Your task to perform on an android device: show emergency info Image 0: 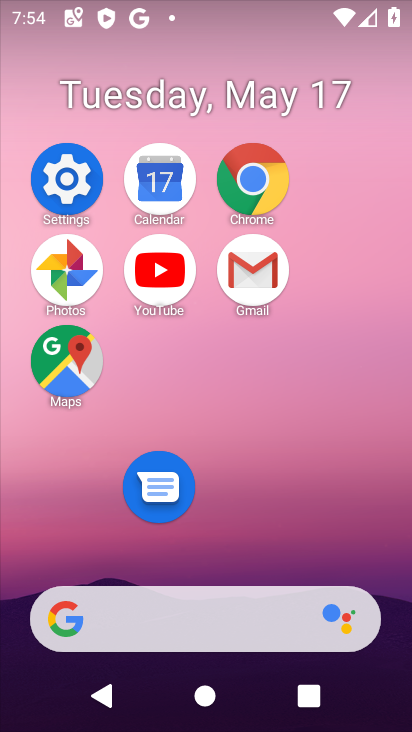
Step 0: click (79, 172)
Your task to perform on an android device: show emergency info Image 1: 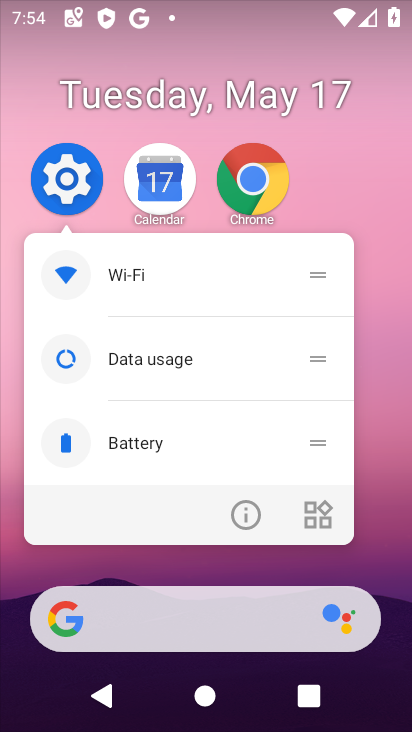
Step 1: click (81, 186)
Your task to perform on an android device: show emergency info Image 2: 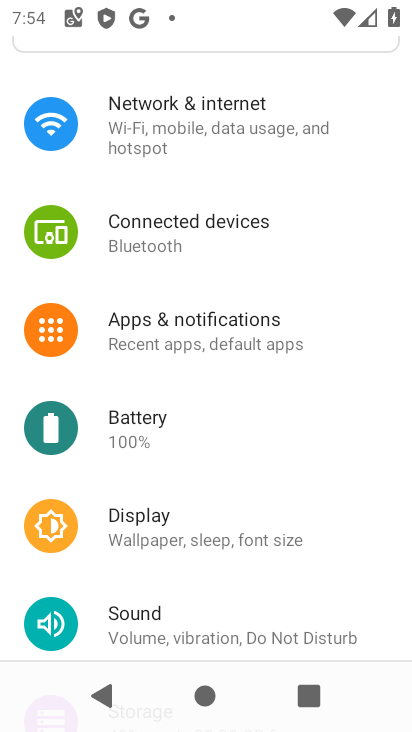
Step 2: drag from (271, 574) to (294, 187)
Your task to perform on an android device: show emergency info Image 3: 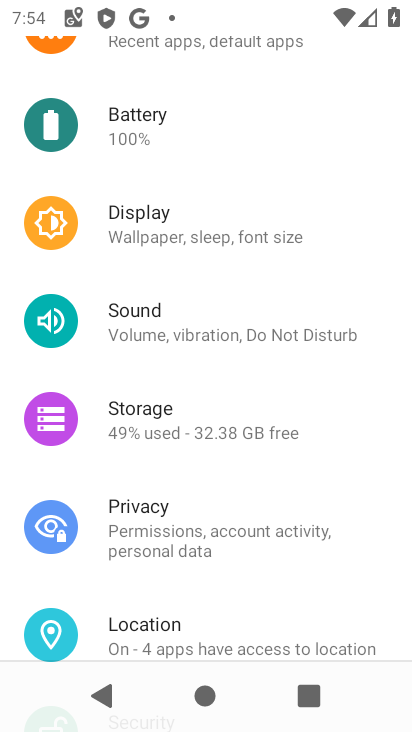
Step 3: drag from (262, 577) to (272, 194)
Your task to perform on an android device: show emergency info Image 4: 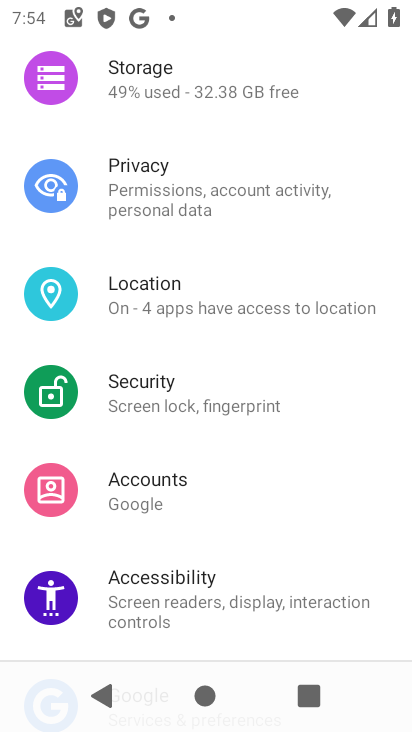
Step 4: drag from (253, 503) to (275, 214)
Your task to perform on an android device: show emergency info Image 5: 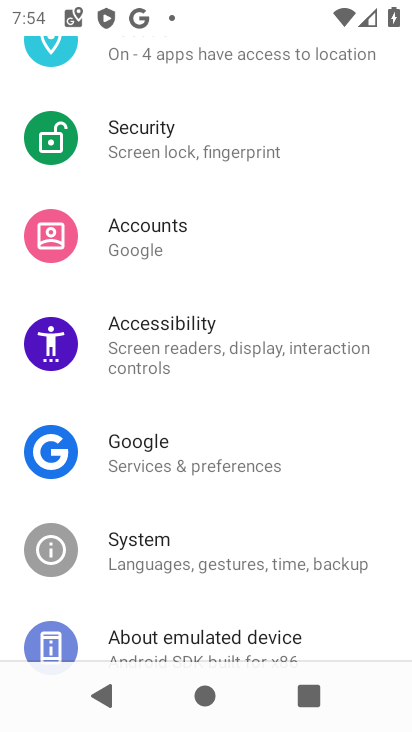
Step 5: drag from (229, 600) to (246, 217)
Your task to perform on an android device: show emergency info Image 6: 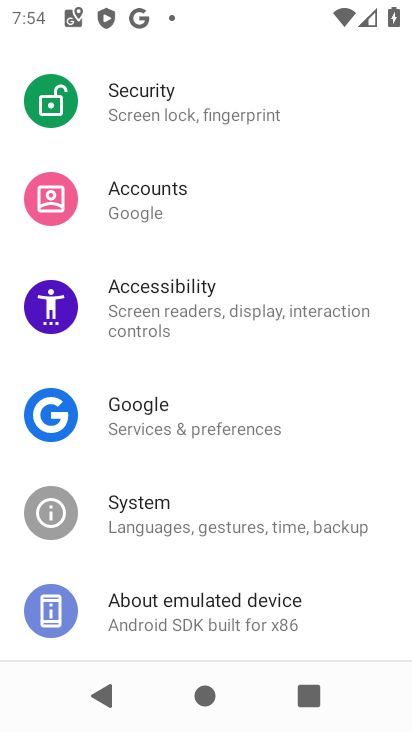
Step 6: click (234, 608)
Your task to perform on an android device: show emergency info Image 7: 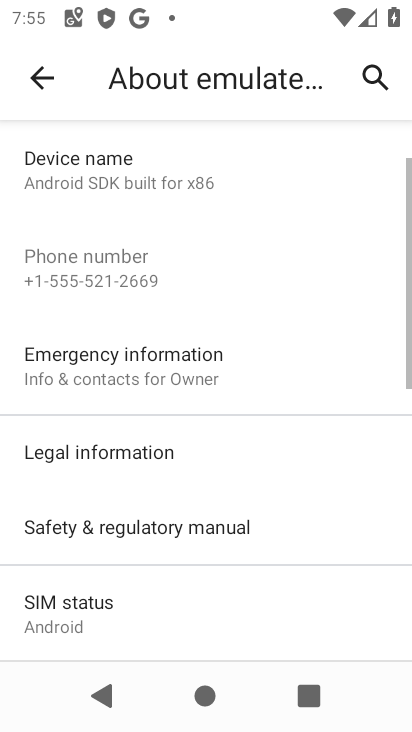
Step 7: click (215, 365)
Your task to perform on an android device: show emergency info Image 8: 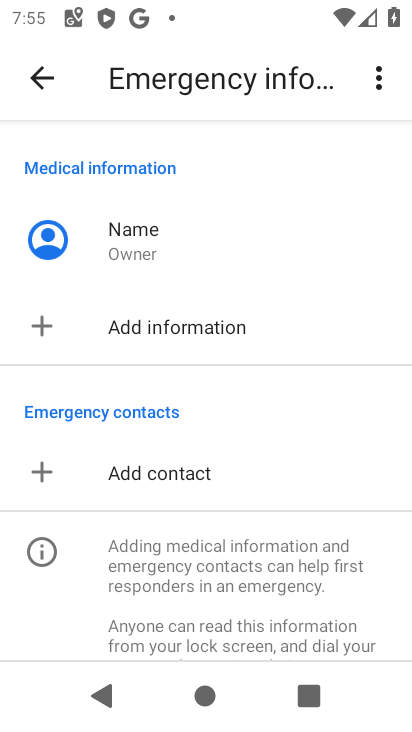
Step 8: task complete